Your task to perform on an android device: turn on notifications settings in the gmail app Image 0: 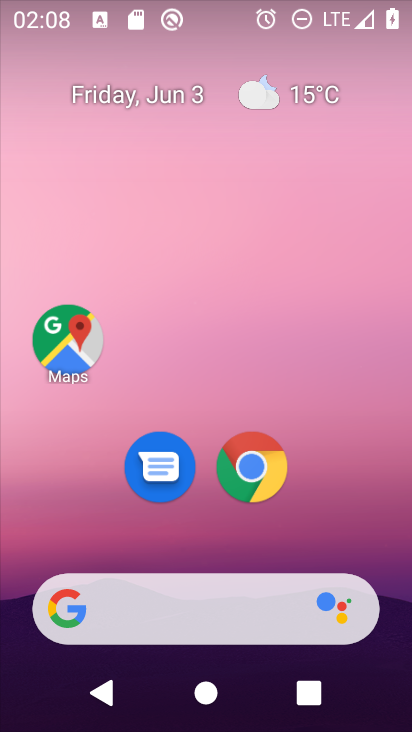
Step 0: drag from (394, 627) to (335, 98)
Your task to perform on an android device: turn on notifications settings in the gmail app Image 1: 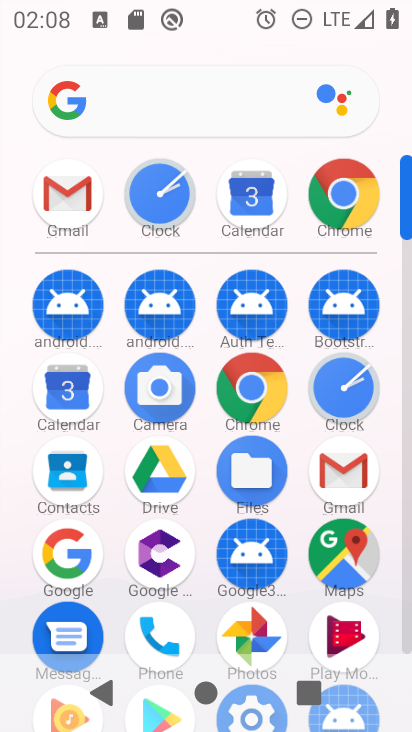
Step 1: click (407, 624)
Your task to perform on an android device: turn on notifications settings in the gmail app Image 2: 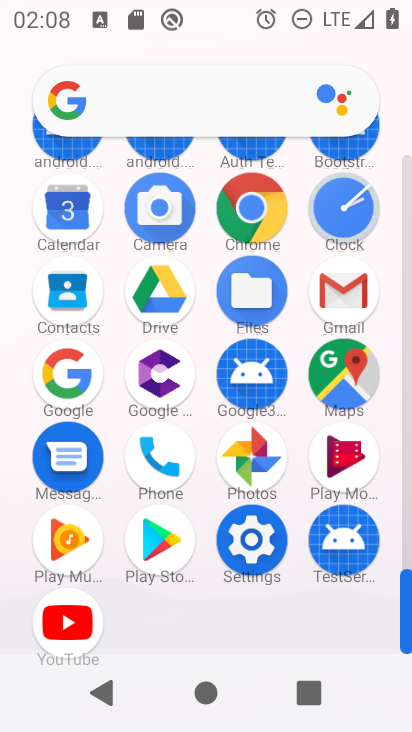
Step 2: click (342, 289)
Your task to perform on an android device: turn on notifications settings in the gmail app Image 3: 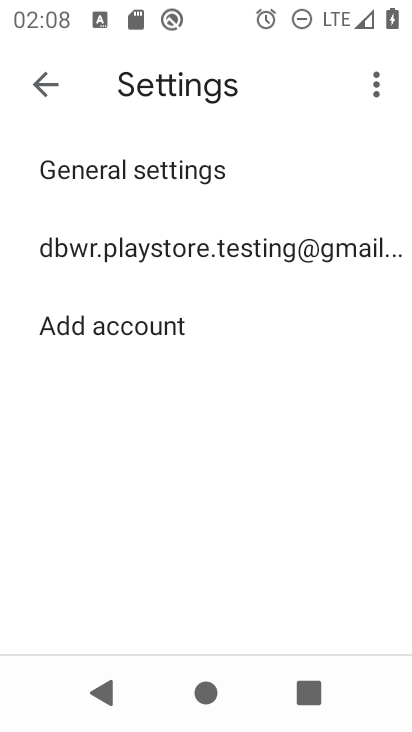
Step 3: click (123, 256)
Your task to perform on an android device: turn on notifications settings in the gmail app Image 4: 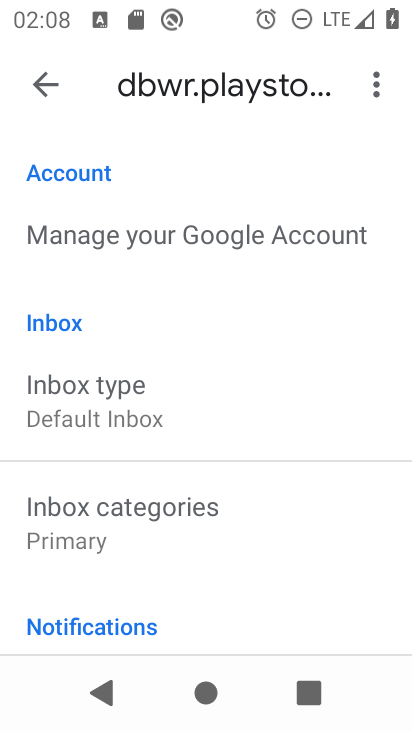
Step 4: drag from (223, 558) to (255, 145)
Your task to perform on an android device: turn on notifications settings in the gmail app Image 5: 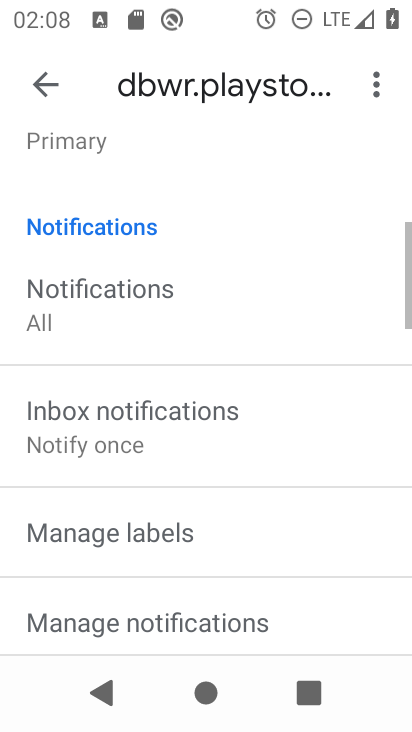
Step 5: drag from (253, 489) to (259, 116)
Your task to perform on an android device: turn on notifications settings in the gmail app Image 6: 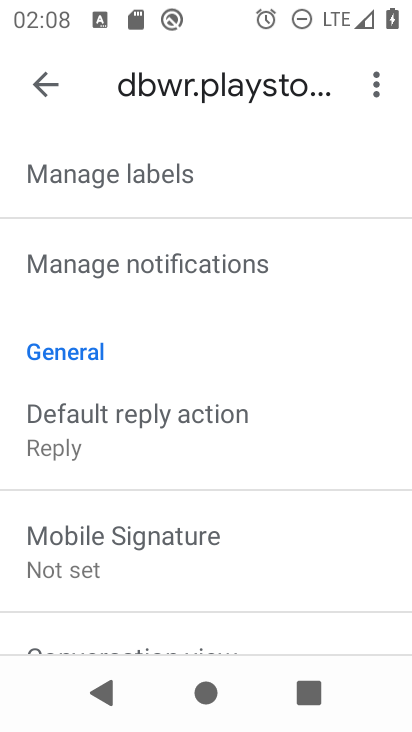
Step 6: click (90, 285)
Your task to perform on an android device: turn on notifications settings in the gmail app Image 7: 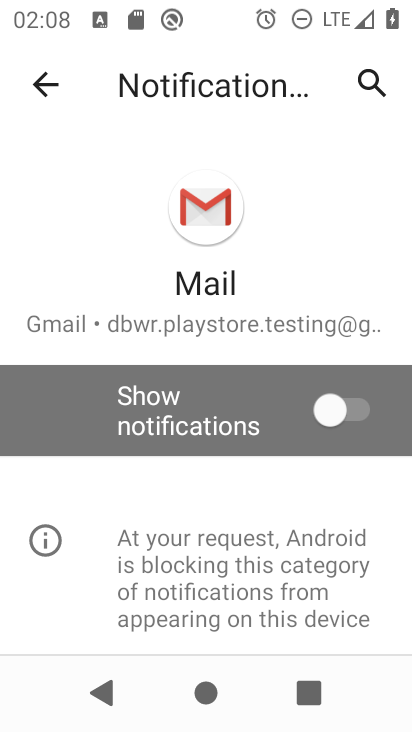
Step 7: click (365, 409)
Your task to perform on an android device: turn on notifications settings in the gmail app Image 8: 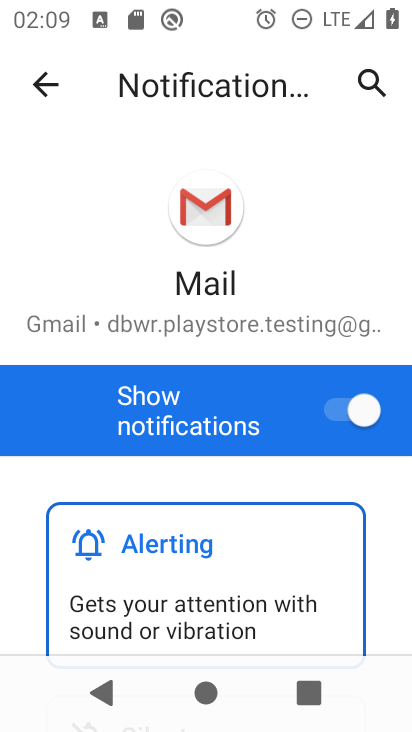
Step 8: task complete